Your task to perform on an android device: star an email in the gmail app Image 0: 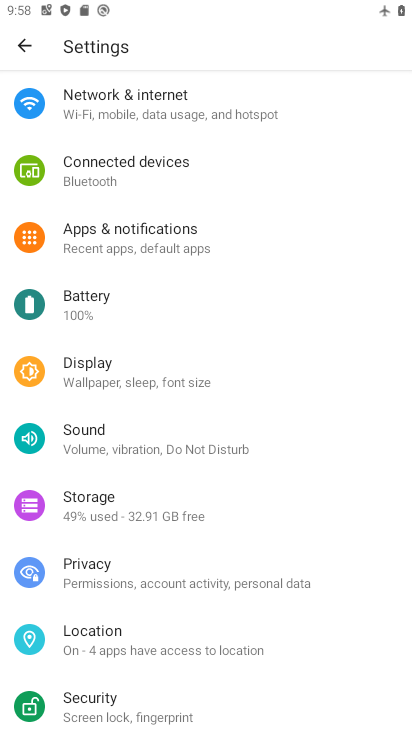
Step 0: press home button
Your task to perform on an android device: star an email in the gmail app Image 1: 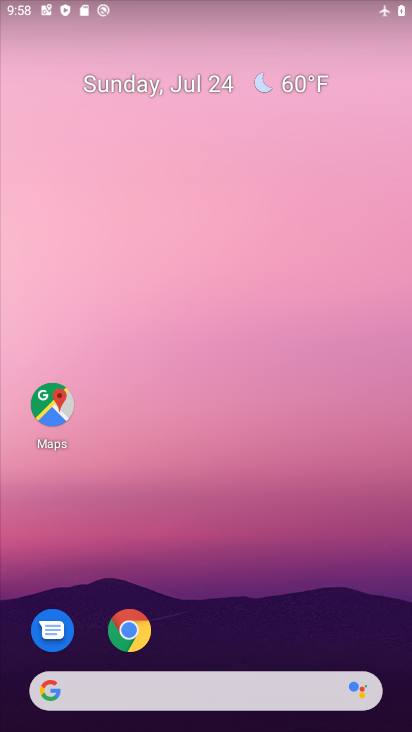
Step 1: drag from (201, 647) to (219, 9)
Your task to perform on an android device: star an email in the gmail app Image 2: 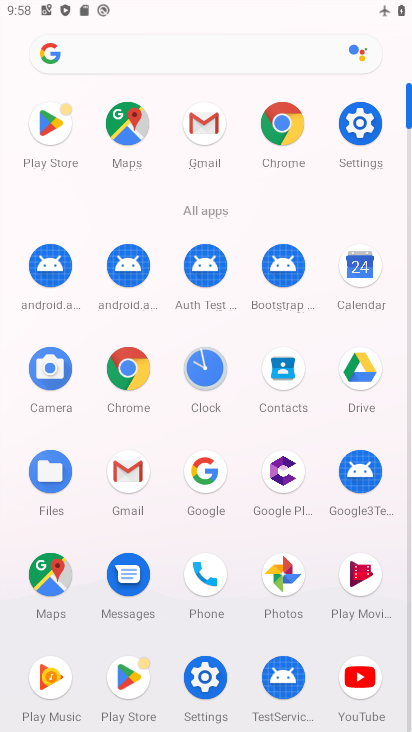
Step 2: click (127, 478)
Your task to perform on an android device: star an email in the gmail app Image 3: 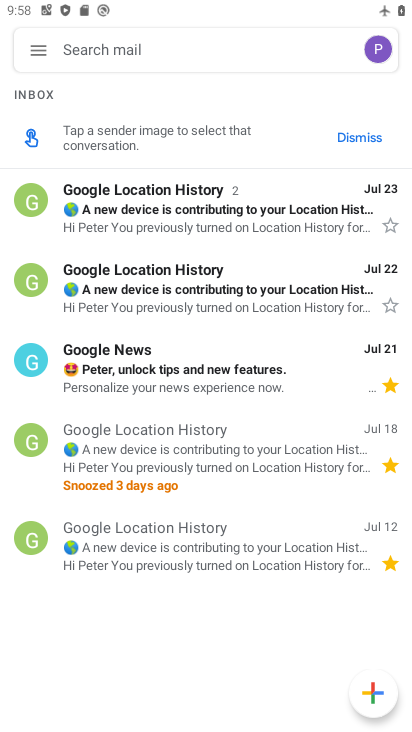
Step 3: click (390, 299)
Your task to perform on an android device: star an email in the gmail app Image 4: 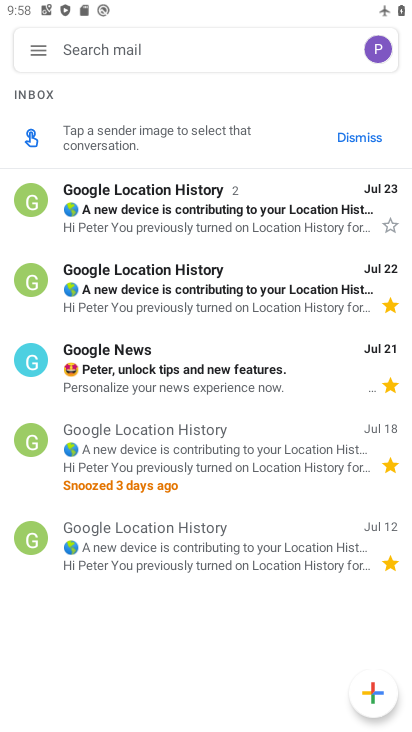
Step 4: task complete